Your task to perform on an android device: Do I have any events tomorrow? Image 0: 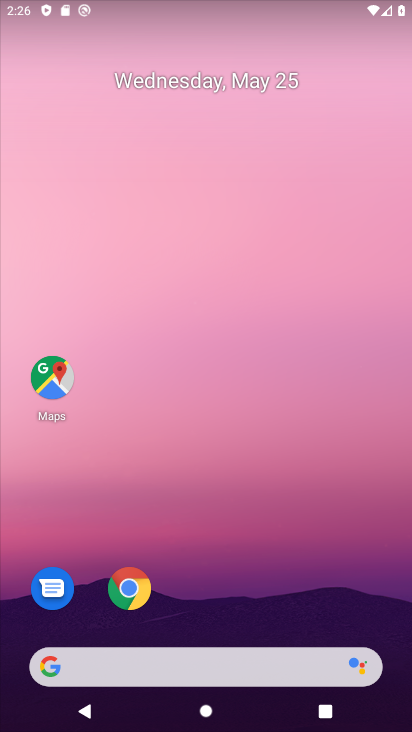
Step 0: drag from (271, 555) to (246, 12)
Your task to perform on an android device: Do I have any events tomorrow? Image 1: 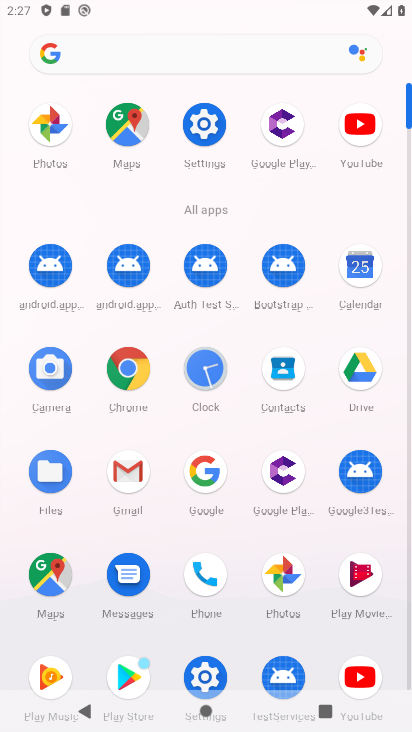
Step 1: click (378, 238)
Your task to perform on an android device: Do I have any events tomorrow? Image 2: 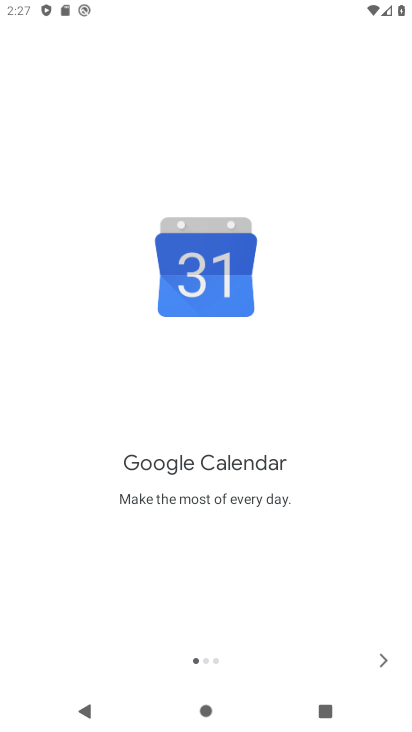
Step 2: click (385, 657)
Your task to perform on an android device: Do I have any events tomorrow? Image 3: 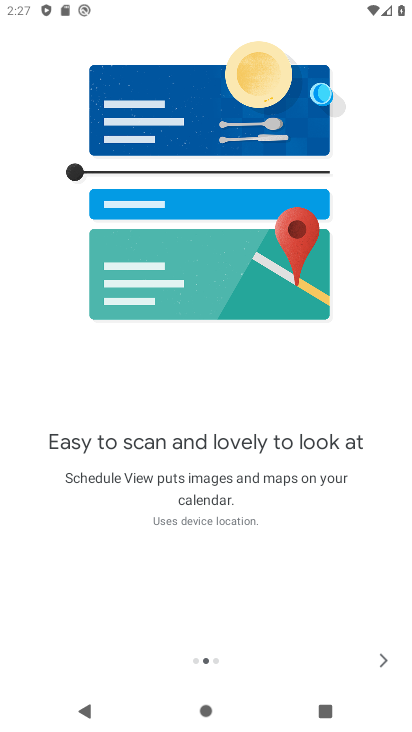
Step 3: click (391, 669)
Your task to perform on an android device: Do I have any events tomorrow? Image 4: 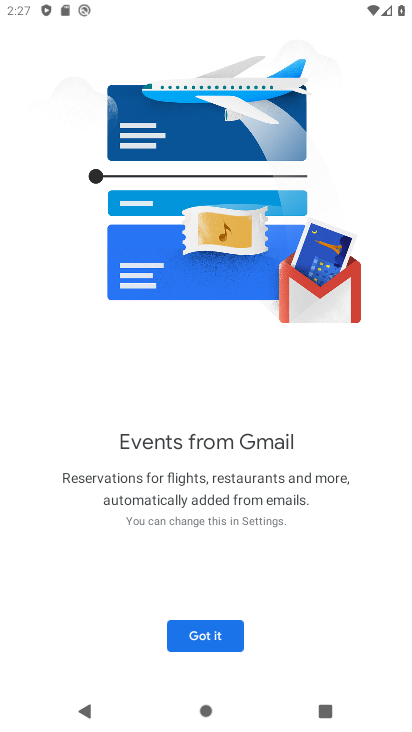
Step 4: click (236, 644)
Your task to perform on an android device: Do I have any events tomorrow? Image 5: 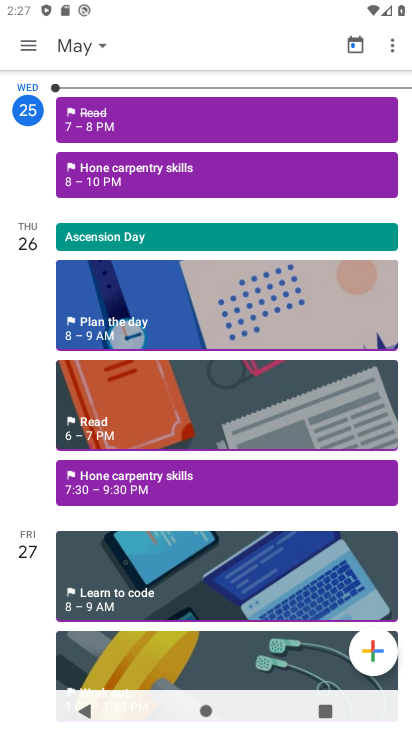
Step 5: click (102, 41)
Your task to perform on an android device: Do I have any events tomorrow? Image 6: 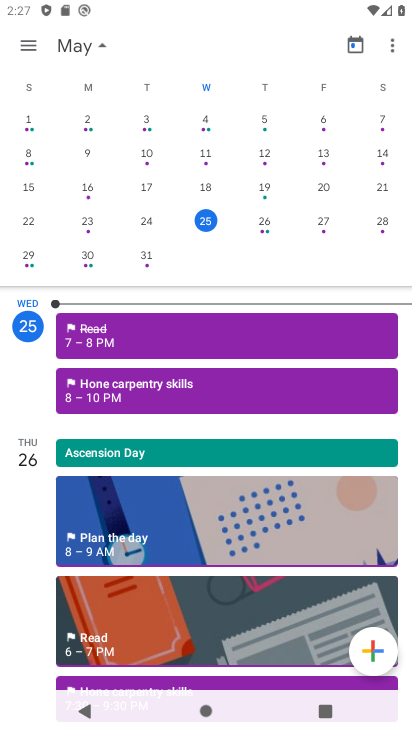
Step 6: click (259, 234)
Your task to perform on an android device: Do I have any events tomorrow? Image 7: 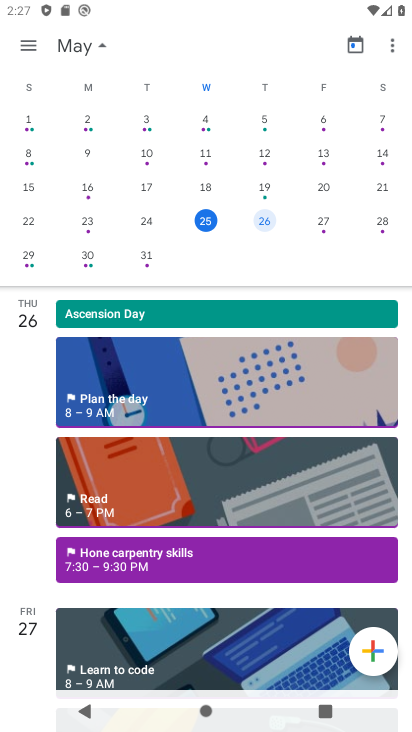
Step 7: click (106, 49)
Your task to perform on an android device: Do I have any events tomorrow? Image 8: 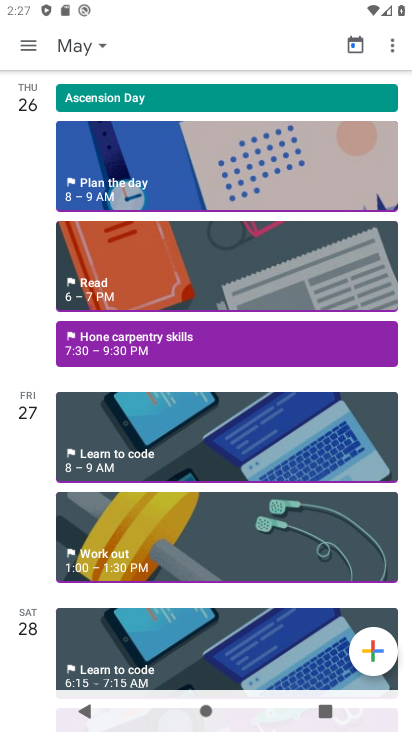
Step 8: task complete